Your task to perform on an android device: add a contact in the contacts app Image 0: 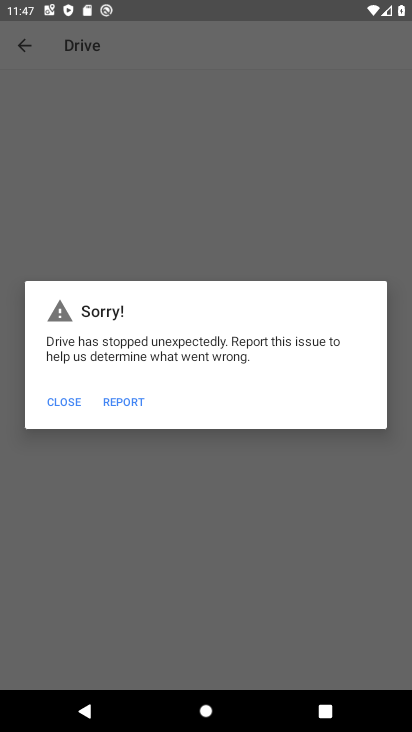
Step 0: press home button
Your task to perform on an android device: add a contact in the contacts app Image 1: 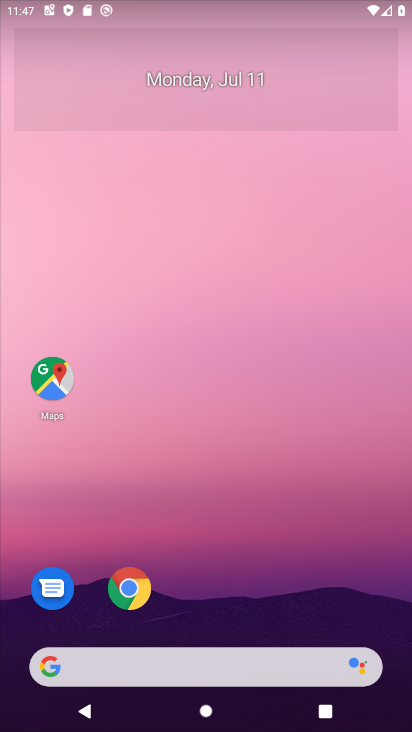
Step 1: drag from (339, 618) to (222, 160)
Your task to perform on an android device: add a contact in the contacts app Image 2: 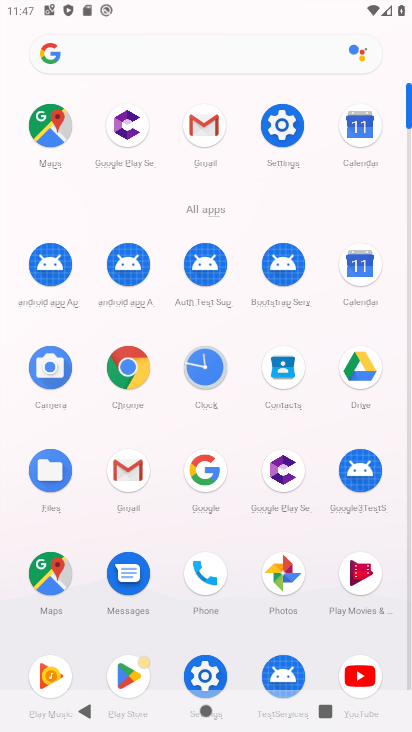
Step 2: click (286, 363)
Your task to perform on an android device: add a contact in the contacts app Image 3: 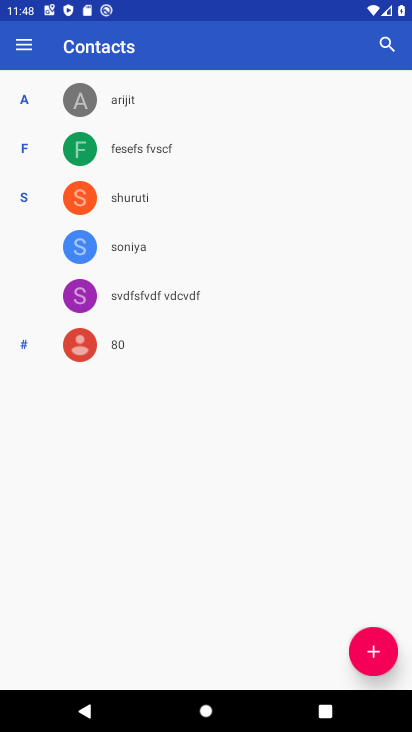
Step 3: click (375, 644)
Your task to perform on an android device: add a contact in the contacts app Image 4: 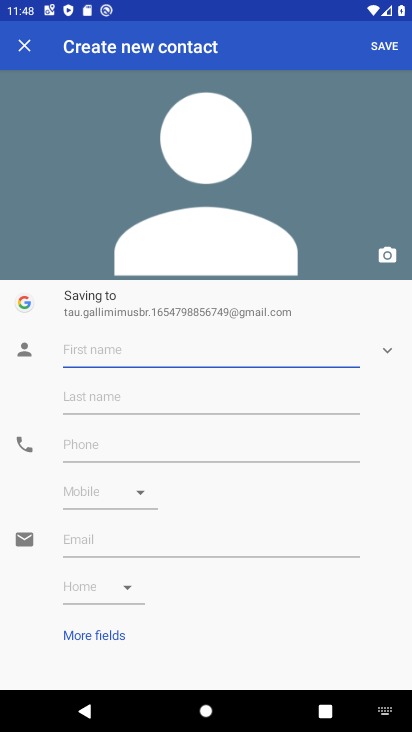
Step 4: type "maubilli"
Your task to perform on an android device: add a contact in the contacts app Image 5: 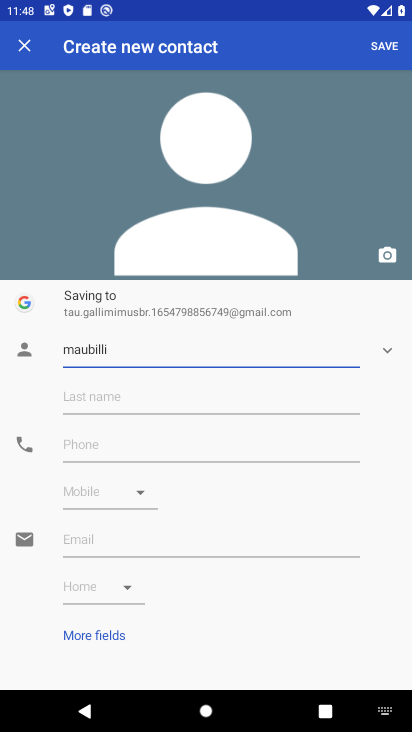
Step 5: click (385, 42)
Your task to perform on an android device: add a contact in the contacts app Image 6: 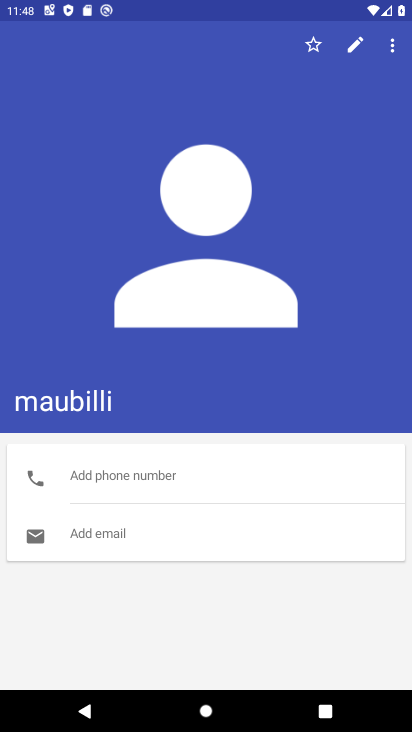
Step 6: task complete